Your task to perform on an android device: Go to Reddit.com Image 0: 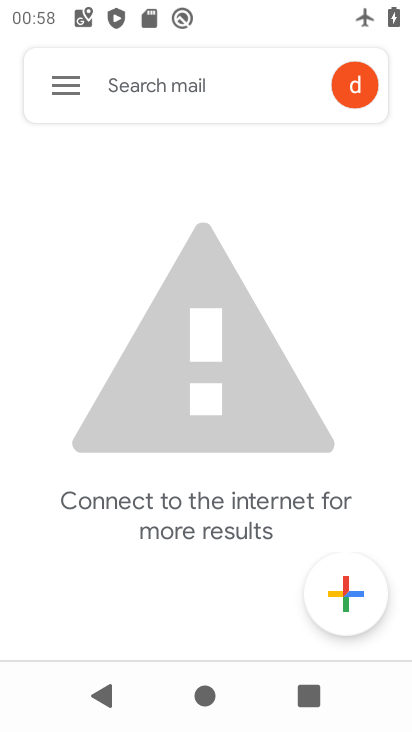
Step 0: press home button
Your task to perform on an android device: Go to Reddit.com Image 1: 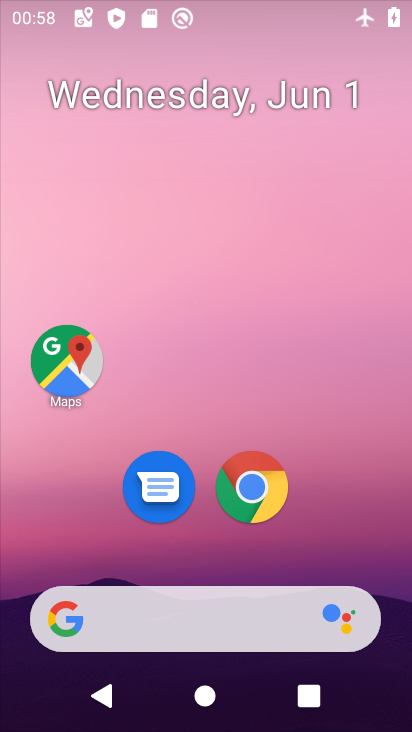
Step 1: drag from (287, 556) to (328, 290)
Your task to perform on an android device: Go to Reddit.com Image 2: 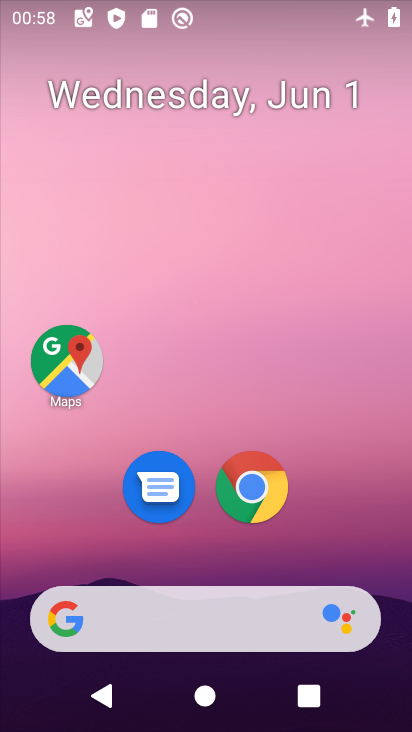
Step 2: click (258, 462)
Your task to perform on an android device: Go to Reddit.com Image 3: 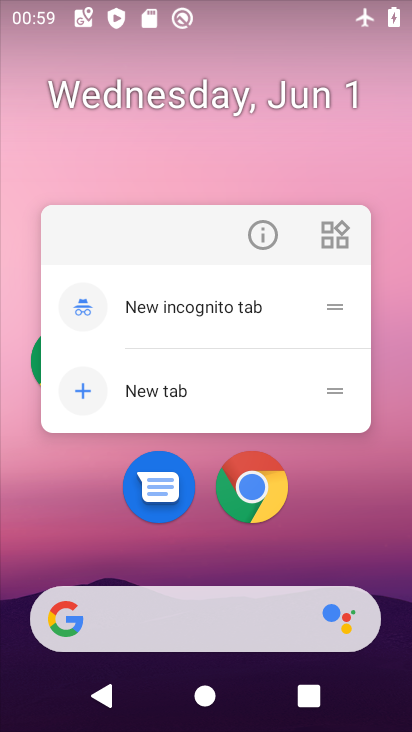
Step 3: click (244, 478)
Your task to perform on an android device: Go to Reddit.com Image 4: 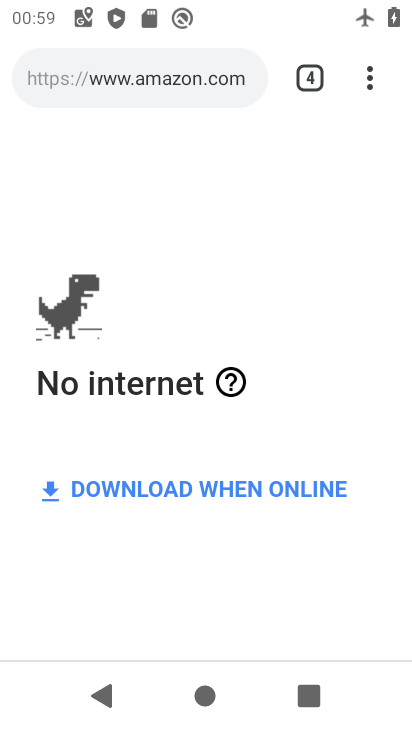
Step 4: click (358, 70)
Your task to perform on an android device: Go to Reddit.com Image 5: 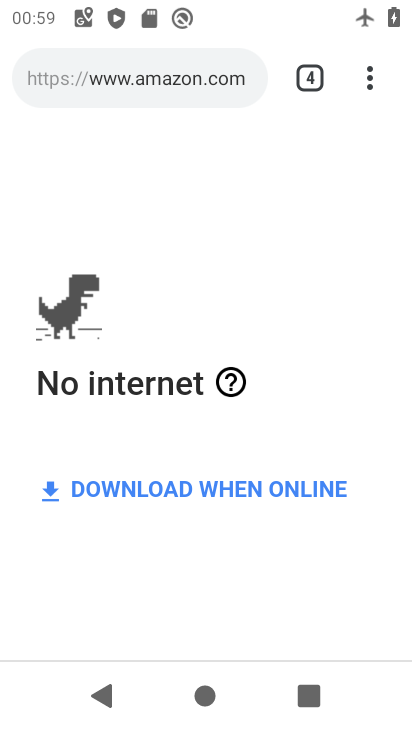
Step 5: click (375, 60)
Your task to perform on an android device: Go to Reddit.com Image 6: 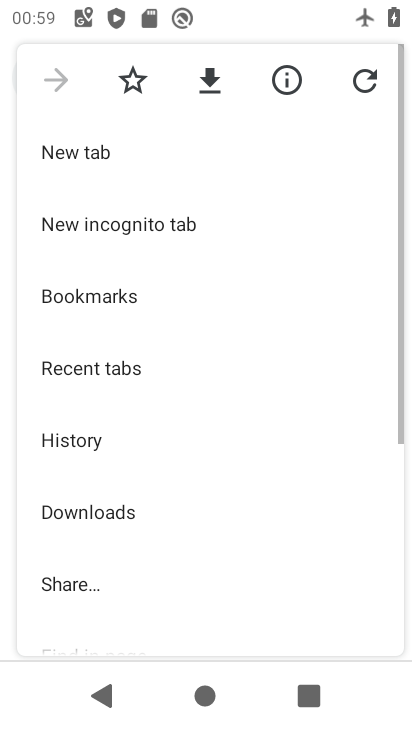
Step 6: click (93, 136)
Your task to perform on an android device: Go to Reddit.com Image 7: 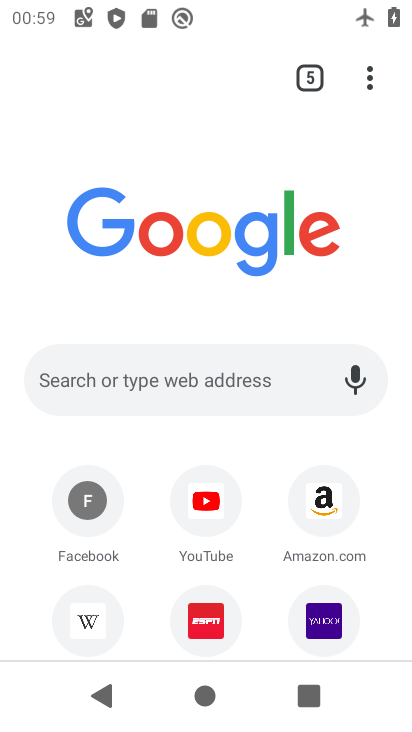
Step 7: click (154, 392)
Your task to perform on an android device: Go to Reddit.com Image 8: 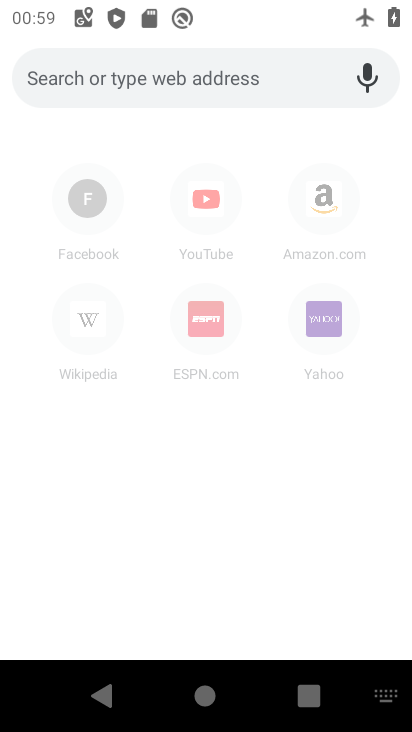
Step 8: type "Reddit.com"
Your task to perform on an android device: Go to Reddit.com Image 9: 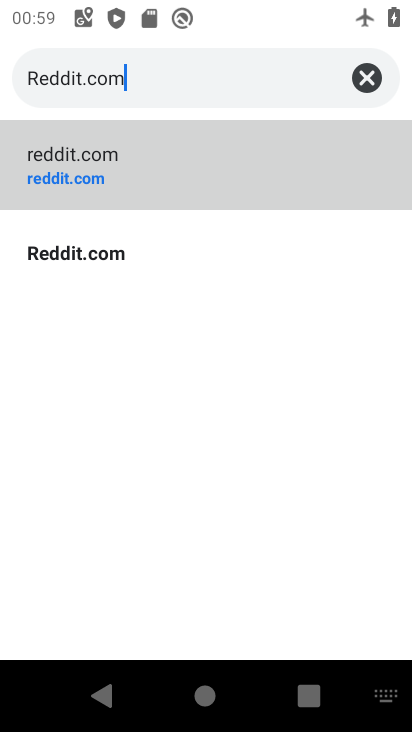
Step 9: click (269, 158)
Your task to perform on an android device: Go to Reddit.com Image 10: 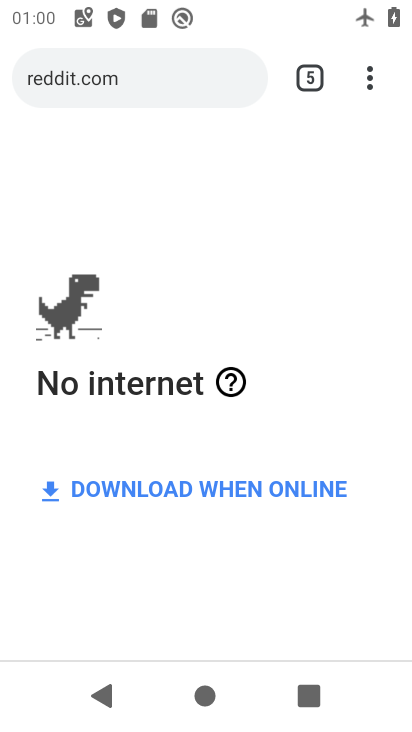
Step 10: task complete